Your task to perform on an android device: toggle data saver in the chrome app Image 0: 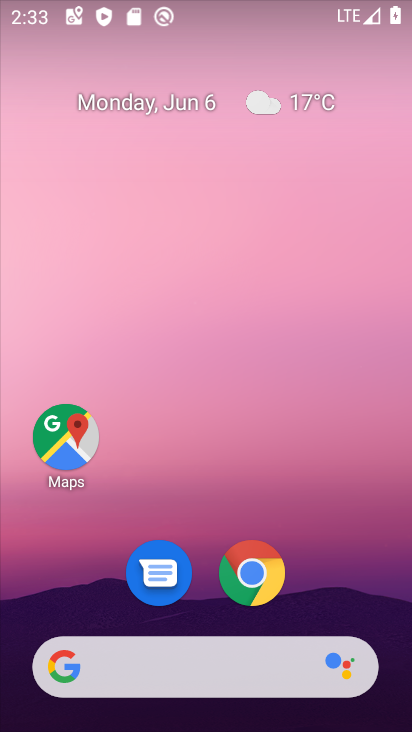
Step 0: drag from (365, 588) to (399, 148)
Your task to perform on an android device: toggle data saver in the chrome app Image 1: 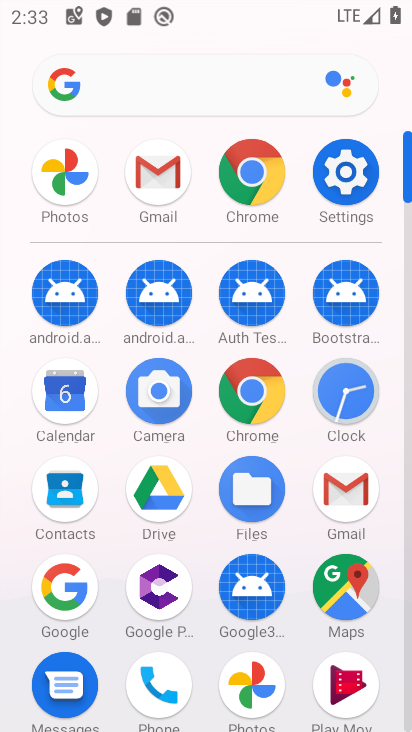
Step 1: click (264, 174)
Your task to perform on an android device: toggle data saver in the chrome app Image 2: 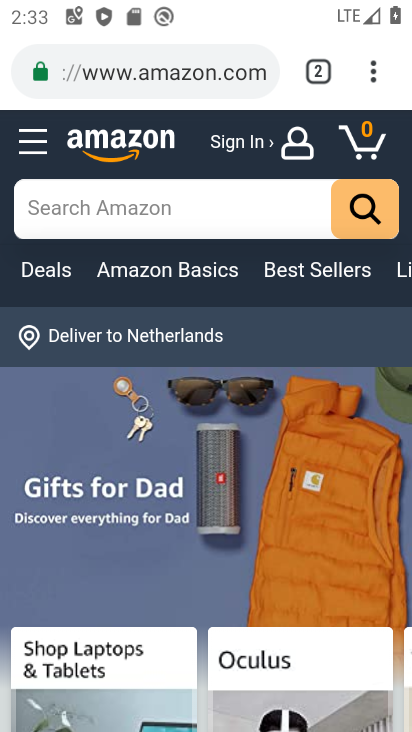
Step 2: click (369, 82)
Your task to perform on an android device: toggle data saver in the chrome app Image 3: 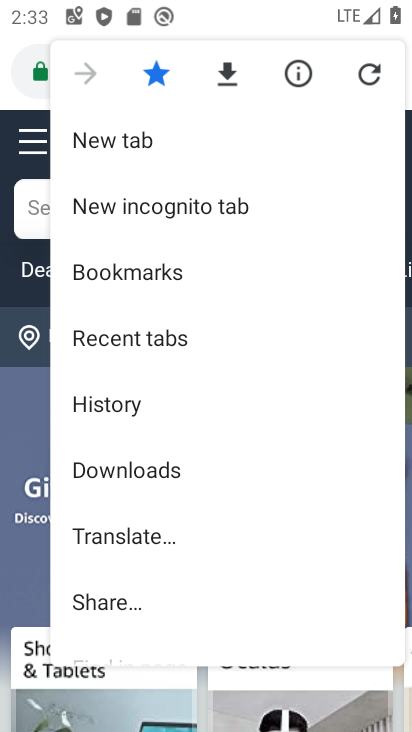
Step 3: drag from (312, 393) to (320, 324)
Your task to perform on an android device: toggle data saver in the chrome app Image 4: 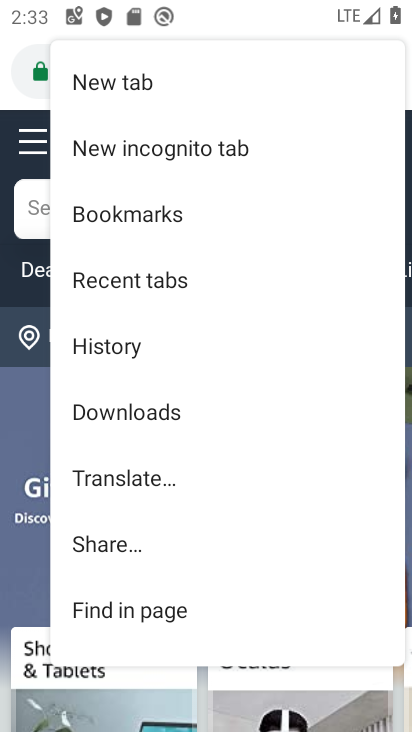
Step 4: drag from (318, 469) to (329, 310)
Your task to perform on an android device: toggle data saver in the chrome app Image 5: 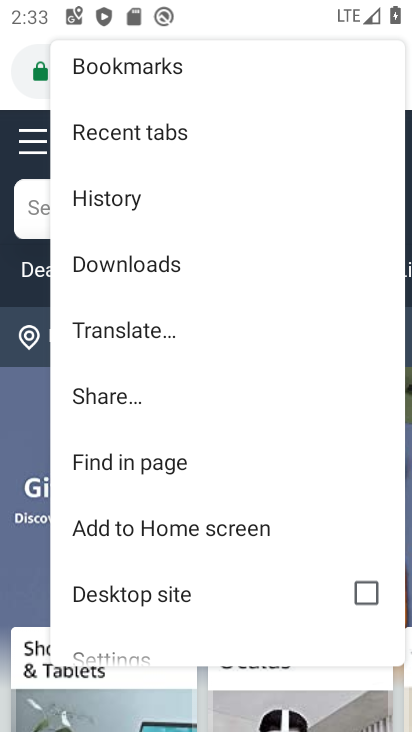
Step 5: drag from (312, 500) to (330, 321)
Your task to perform on an android device: toggle data saver in the chrome app Image 6: 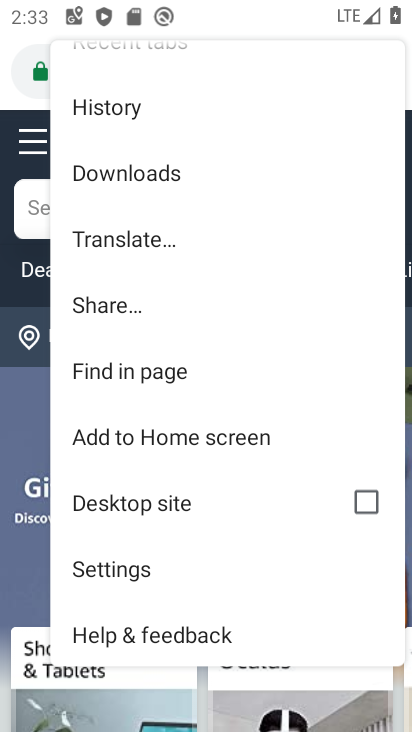
Step 6: click (148, 579)
Your task to perform on an android device: toggle data saver in the chrome app Image 7: 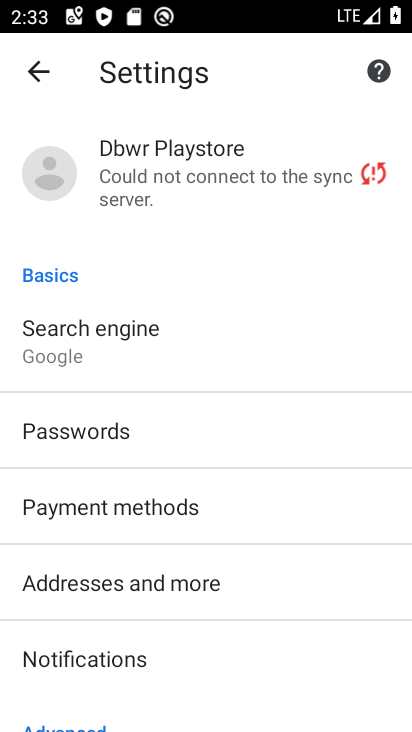
Step 7: drag from (303, 521) to (319, 453)
Your task to perform on an android device: toggle data saver in the chrome app Image 8: 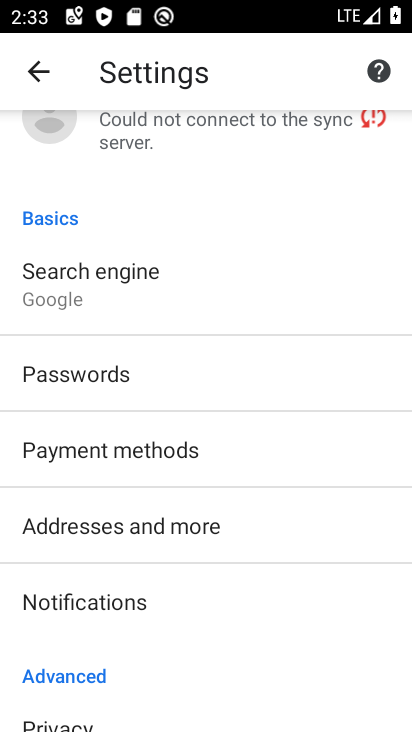
Step 8: drag from (337, 537) to (348, 448)
Your task to perform on an android device: toggle data saver in the chrome app Image 9: 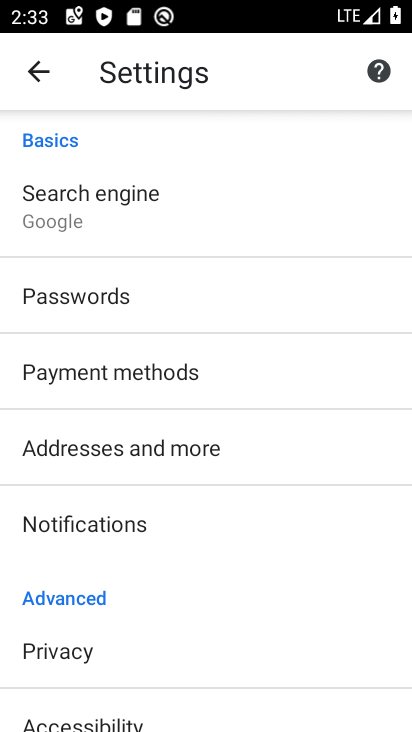
Step 9: drag from (340, 562) to (341, 459)
Your task to perform on an android device: toggle data saver in the chrome app Image 10: 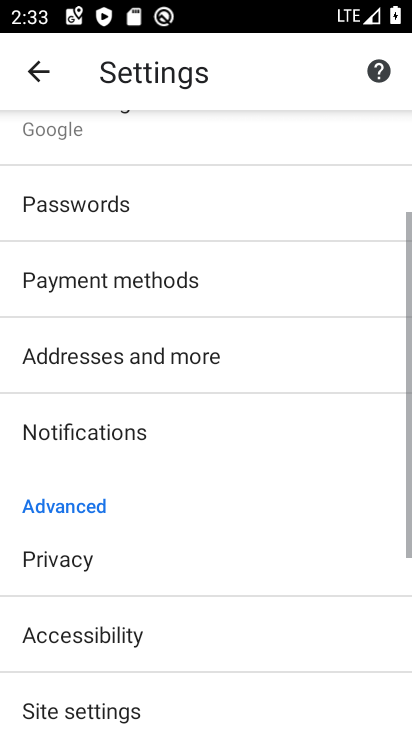
Step 10: drag from (355, 542) to (369, 465)
Your task to perform on an android device: toggle data saver in the chrome app Image 11: 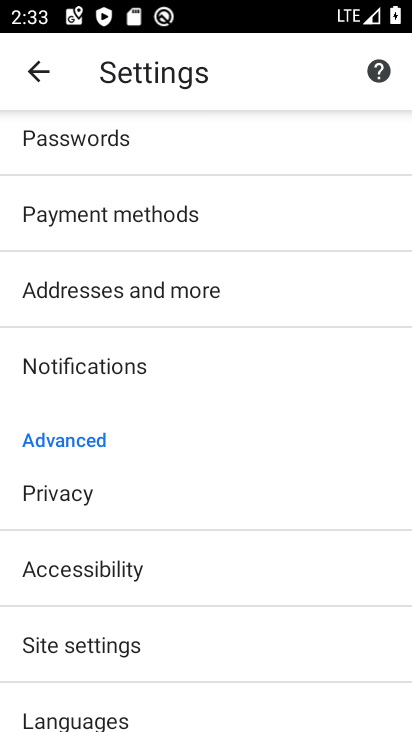
Step 11: drag from (348, 570) to (338, 467)
Your task to perform on an android device: toggle data saver in the chrome app Image 12: 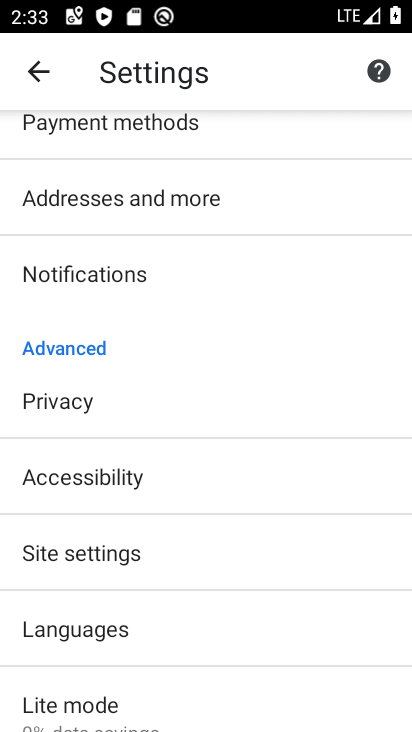
Step 12: drag from (330, 592) to (328, 480)
Your task to perform on an android device: toggle data saver in the chrome app Image 13: 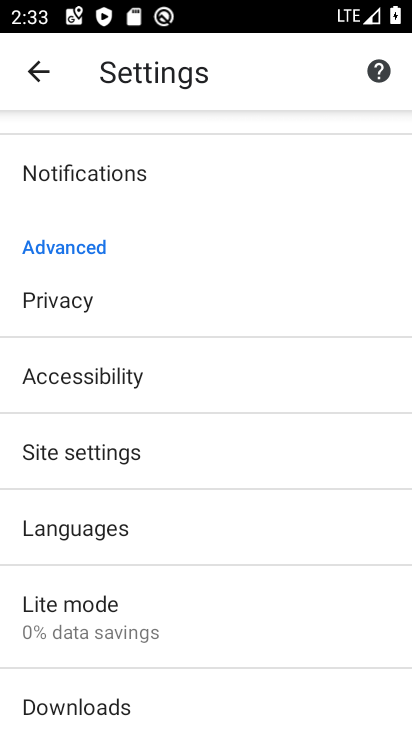
Step 13: click (233, 609)
Your task to perform on an android device: toggle data saver in the chrome app Image 14: 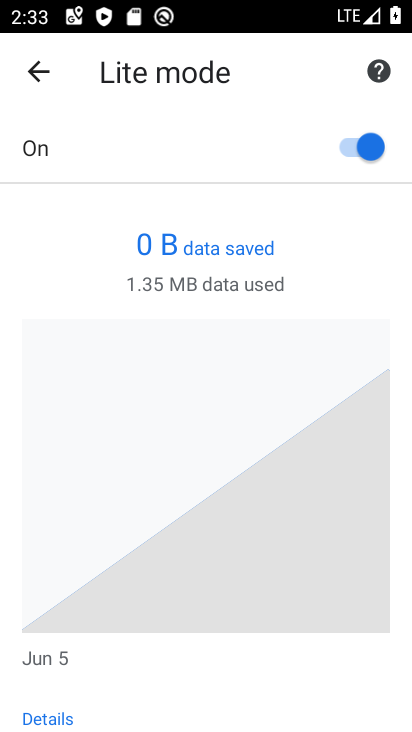
Step 14: click (361, 152)
Your task to perform on an android device: toggle data saver in the chrome app Image 15: 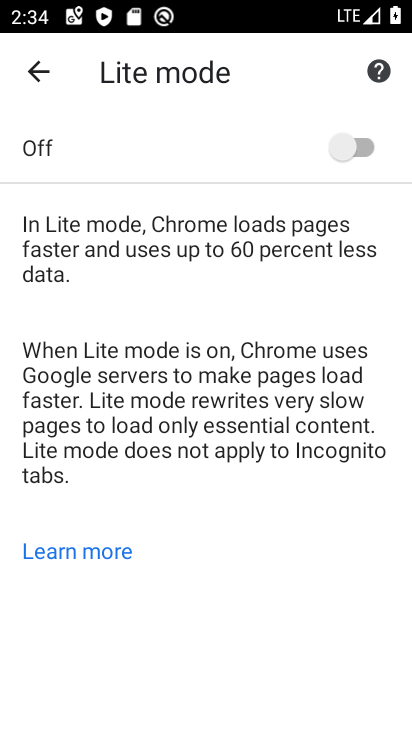
Step 15: task complete